Your task to perform on an android device: all mails in gmail Image 0: 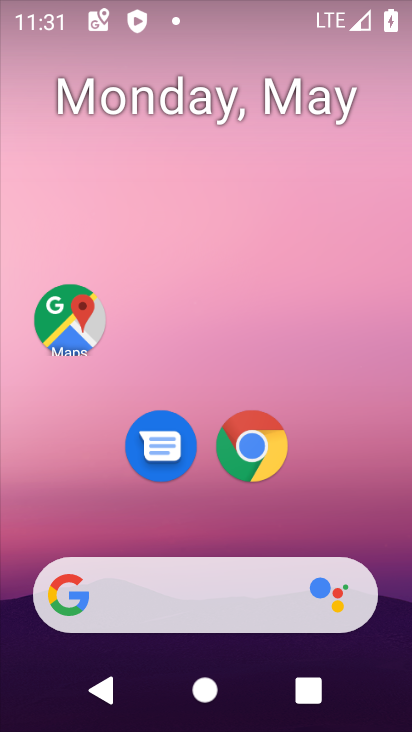
Step 0: drag from (304, 262) to (383, 10)
Your task to perform on an android device: all mails in gmail Image 1: 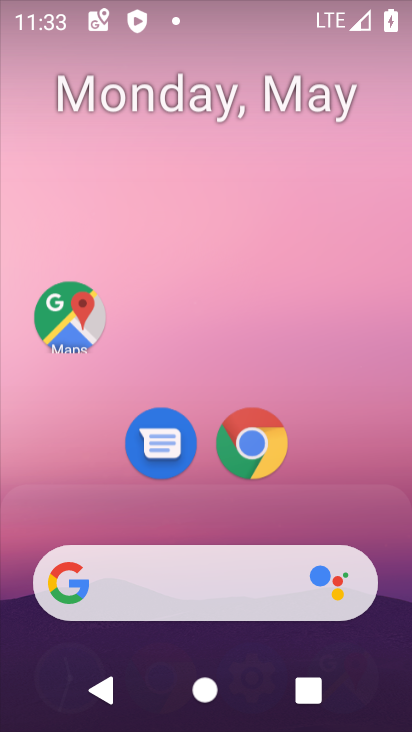
Step 1: click (125, 353)
Your task to perform on an android device: all mails in gmail Image 2: 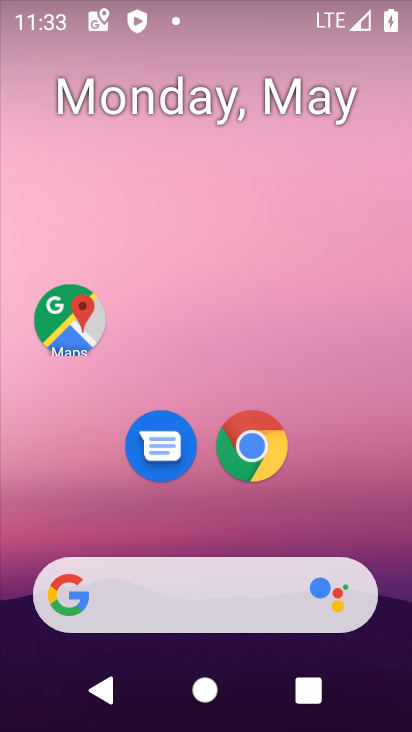
Step 2: drag from (331, 445) to (183, 6)
Your task to perform on an android device: all mails in gmail Image 3: 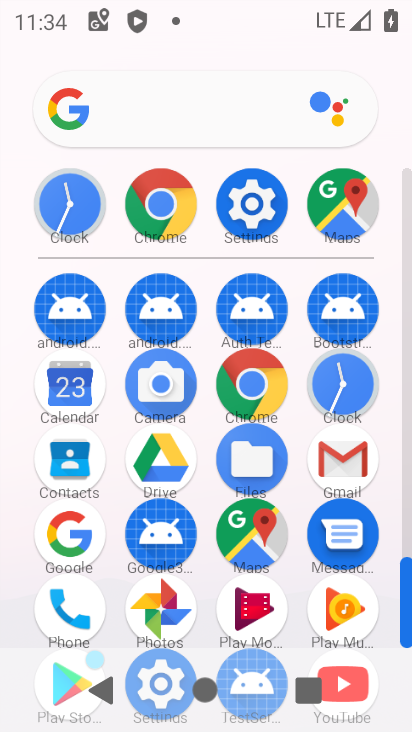
Step 3: click (344, 445)
Your task to perform on an android device: all mails in gmail Image 4: 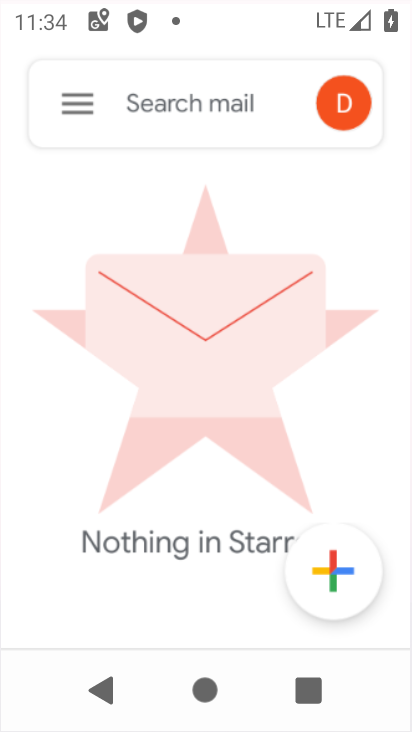
Step 4: click (344, 445)
Your task to perform on an android device: all mails in gmail Image 5: 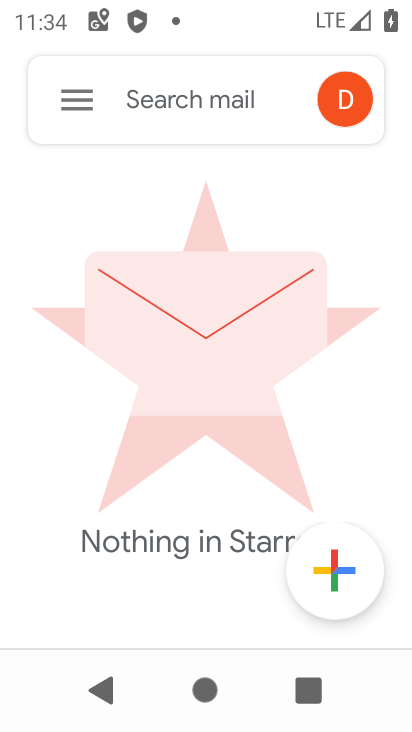
Step 5: click (99, 101)
Your task to perform on an android device: all mails in gmail Image 6: 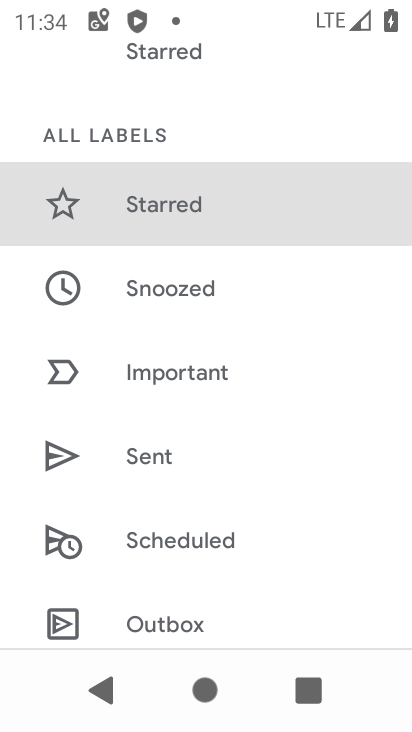
Step 6: drag from (219, 554) to (216, 162)
Your task to perform on an android device: all mails in gmail Image 7: 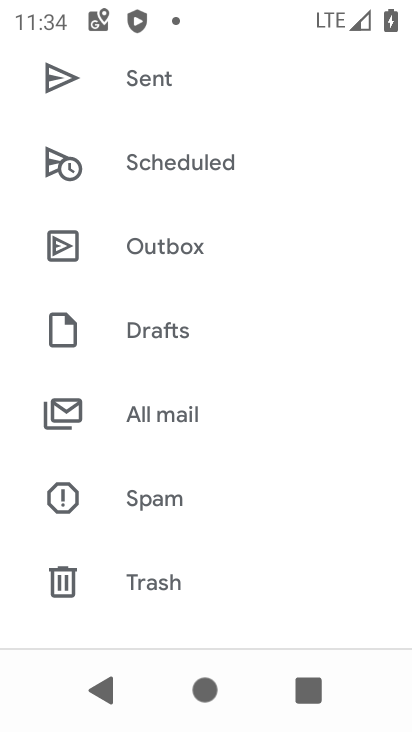
Step 7: click (184, 407)
Your task to perform on an android device: all mails in gmail Image 8: 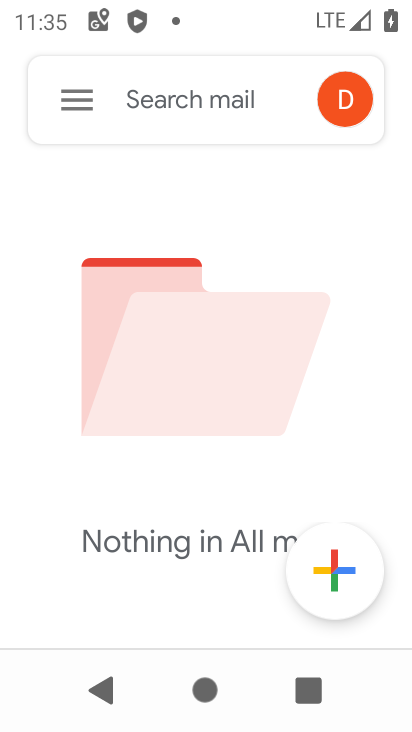
Step 8: task complete